Your task to perform on an android device: Open calendar and show me the third week of next month Image 0: 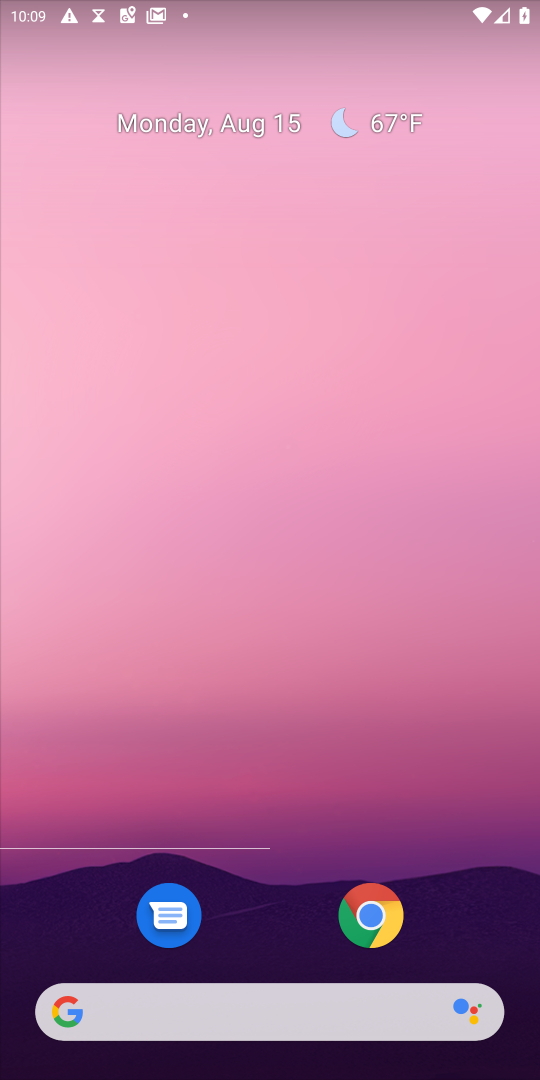
Step 0: drag from (285, 895) to (244, 150)
Your task to perform on an android device: Open calendar and show me the third week of next month Image 1: 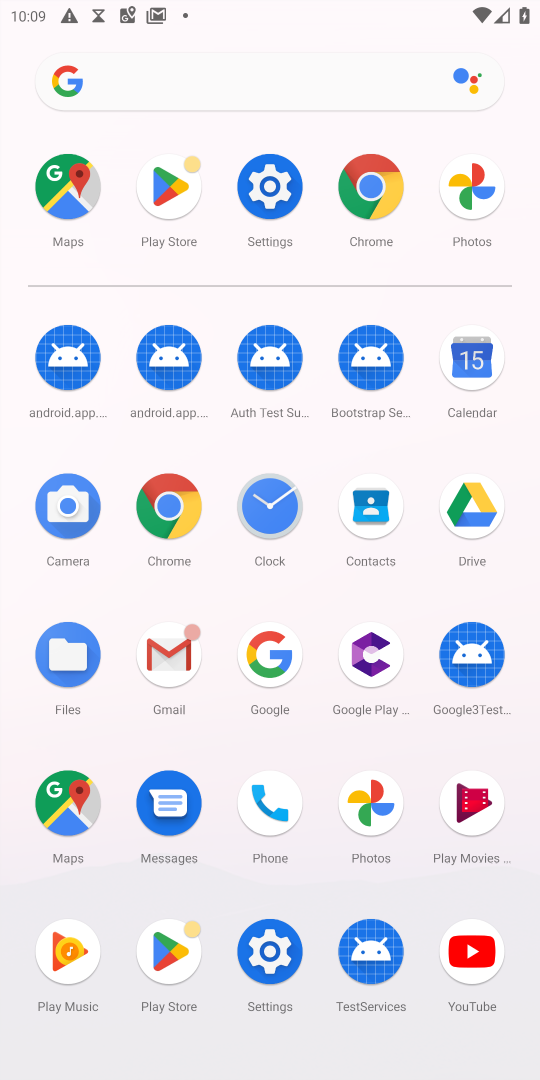
Step 1: click (476, 354)
Your task to perform on an android device: Open calendar and show me the third week of next month Image 2: 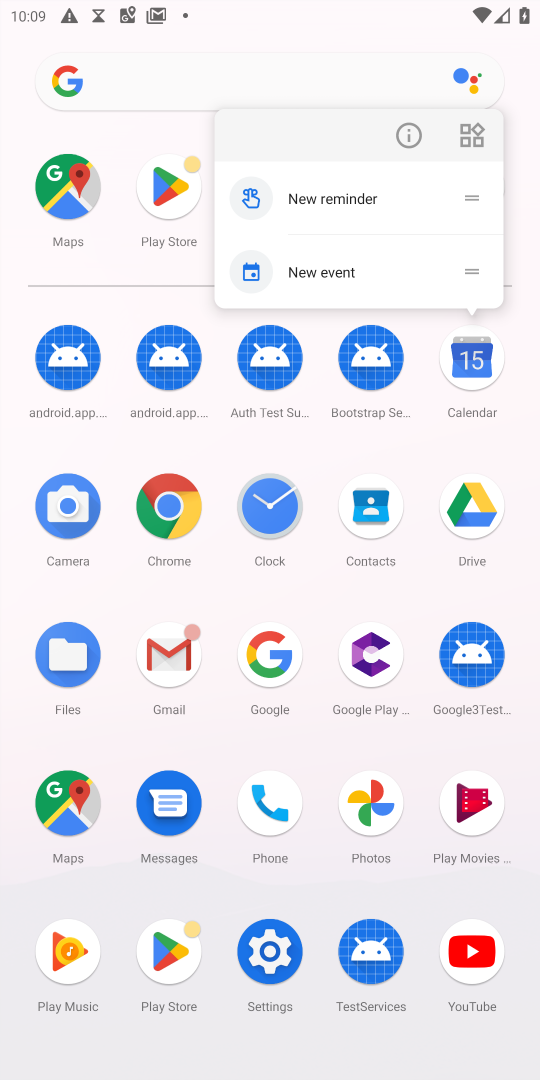
Step 2: click (481, 371)
Your task to perform on an android device: Open calendar and show me the third week of next month Image 3: 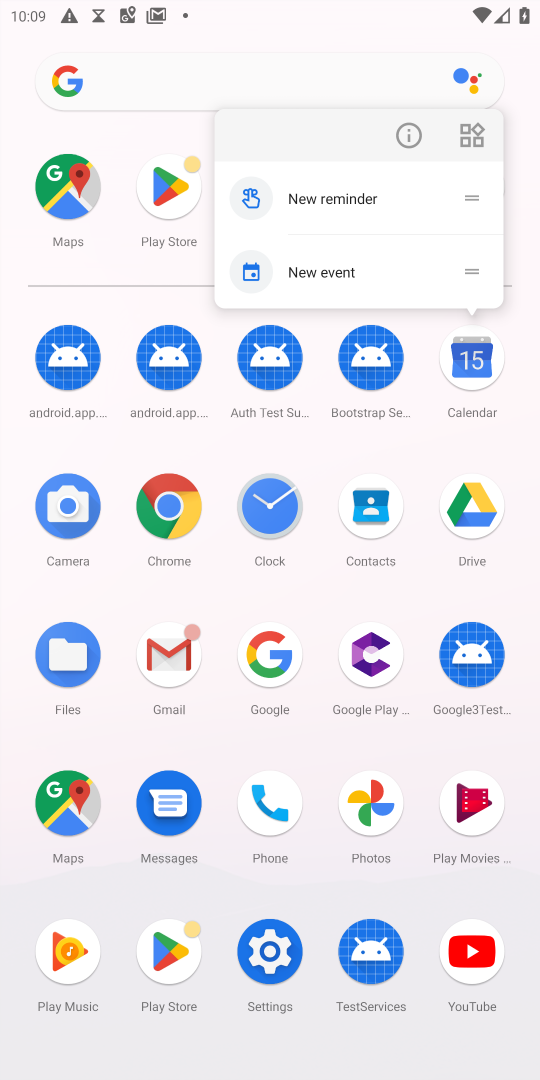
Step 3: click (481, 369)
Your task to perform on an android device: Open calendar and show me the third week of next month Image 4: 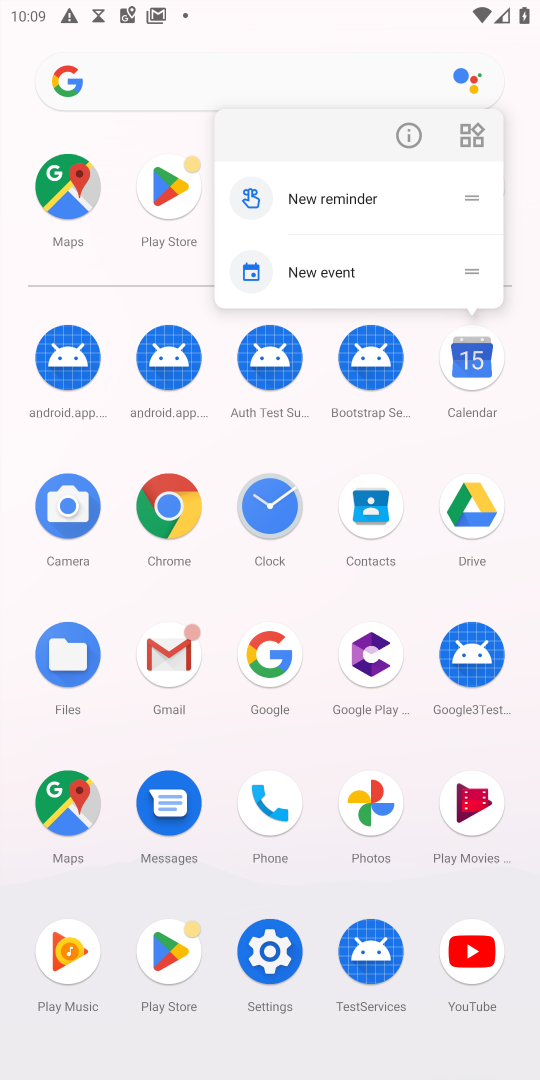
Step 4: click (468, 374)
Your task to perform on an android device: Open calendar and show me the third week of next month Image 5: 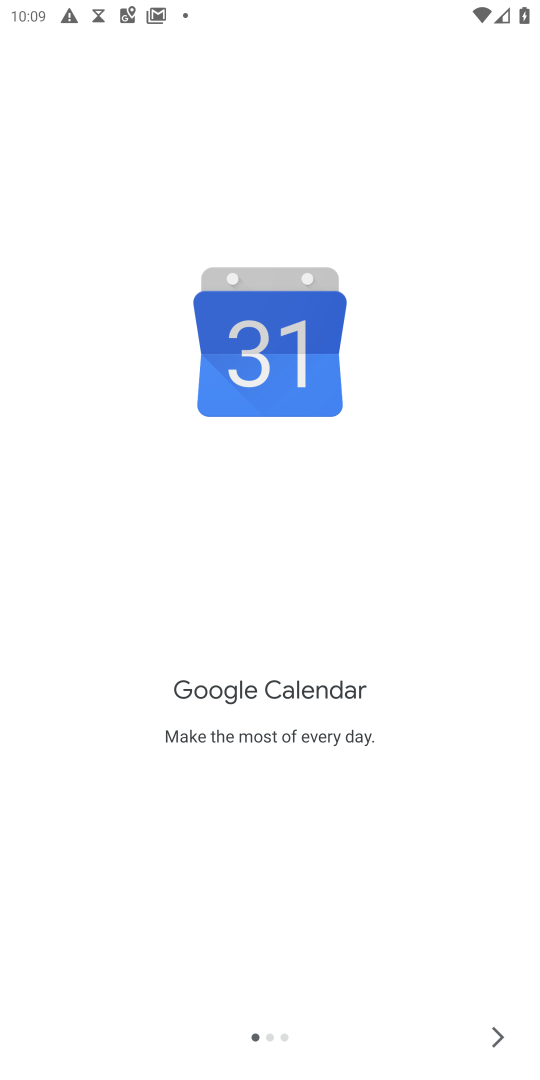
Step 5: click (503, 1048)
Your task to perform on an android device: Open calendar and show me the third week of next month Image 6: 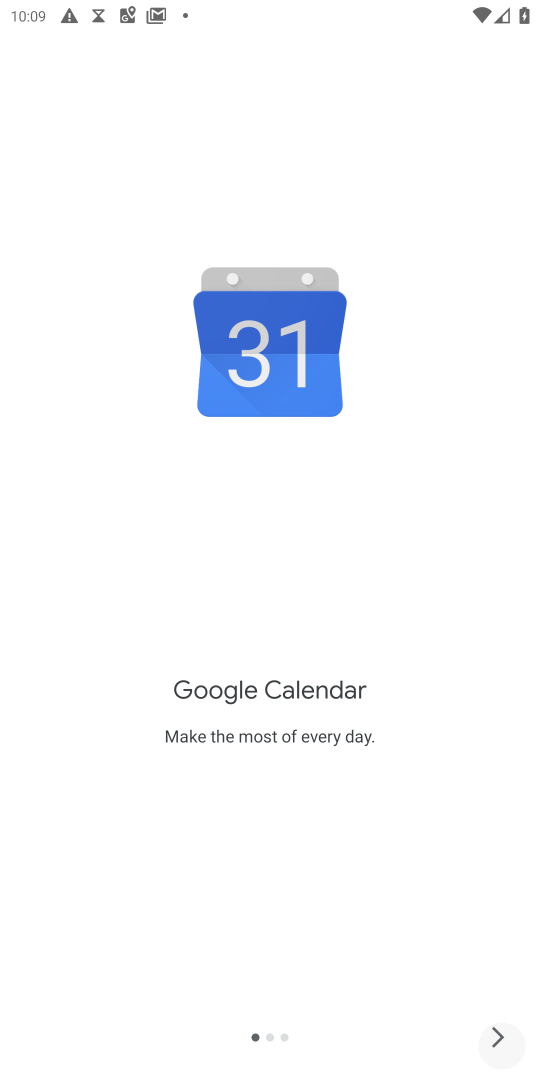
Step 6: click (502, 1047)
Your task to perform on an android device: Open calendar and show me the third week of next month Image 7: 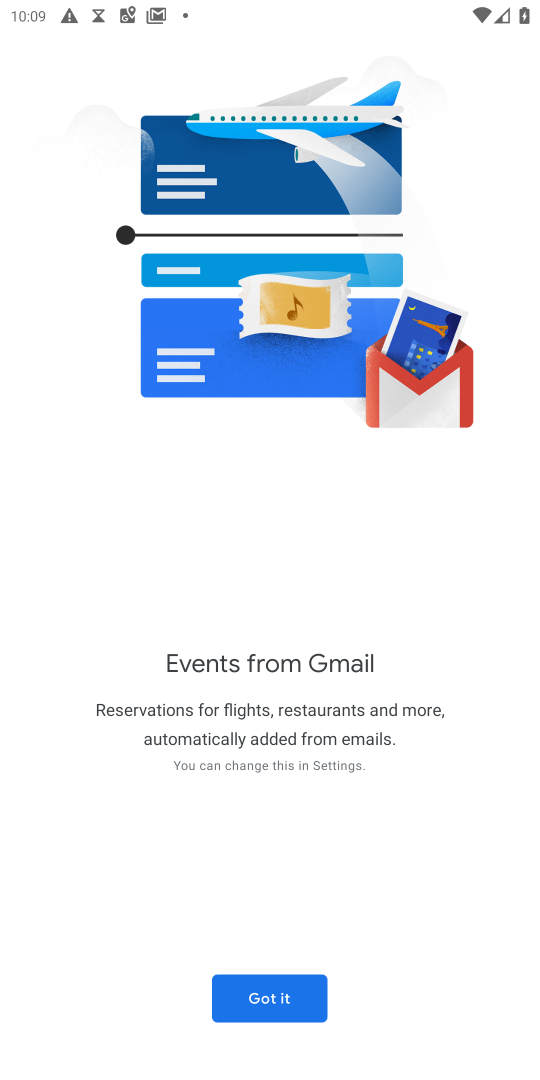
Step 7: click (502, 1047)
Your task to perform on an android device: Open calendar and show me the third week of next month Image 8: 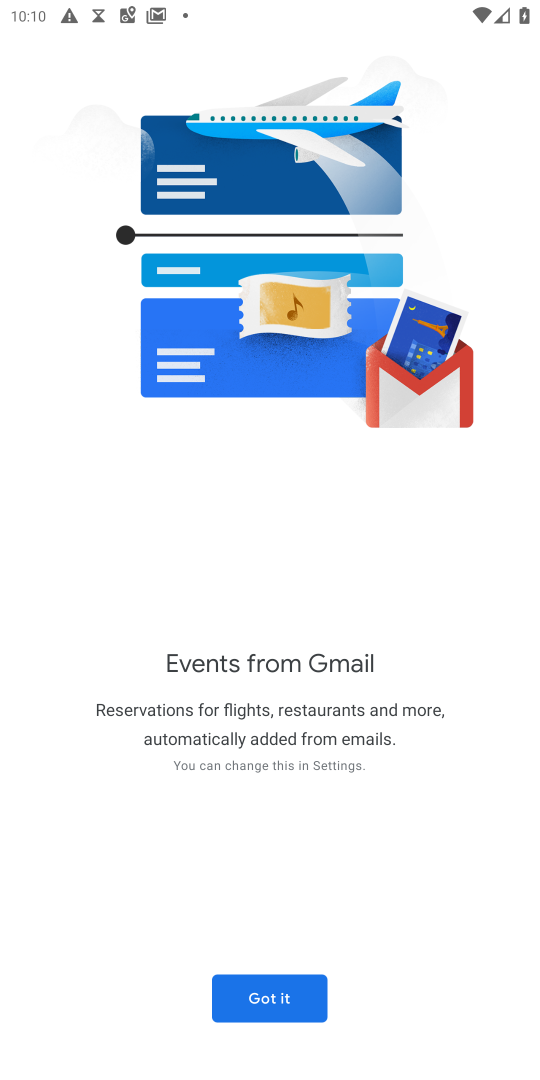
Step 8: click (290, 1003)
Your task to perform on an android device: Open calendar and show me the third week of next month Image 9: 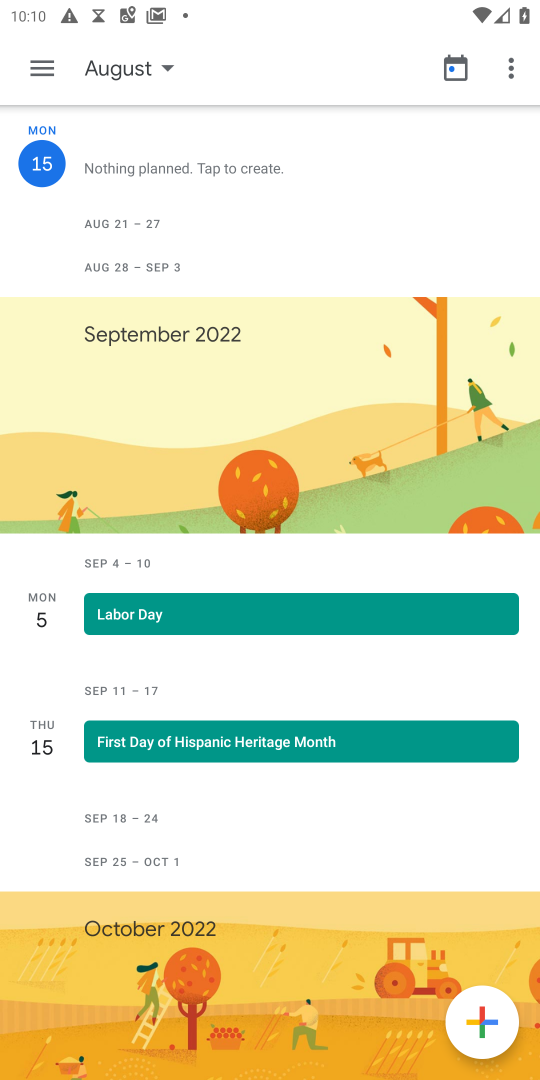
Step 9: click (48, 69)
Your task to perform on an android device: Open calendar and show me the third week of next month Image 10: 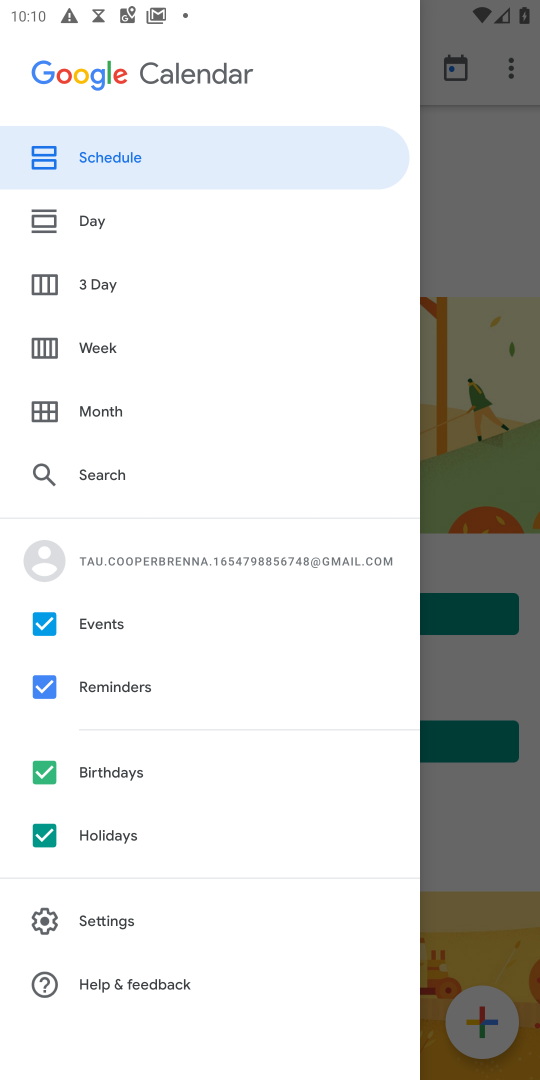
Step 10: click (96, 403)
Your task to perform on an android device: Open calendar and show me the third week of next month Image 11: 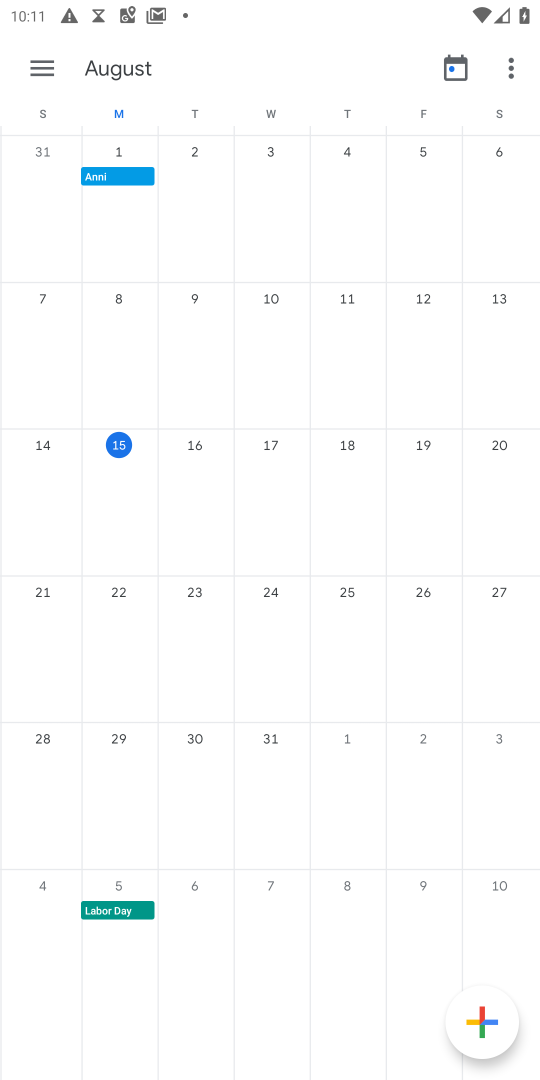
Step 11: task complete